Your task to perform on an android device: turn pop-ups on in chrome Image 0: 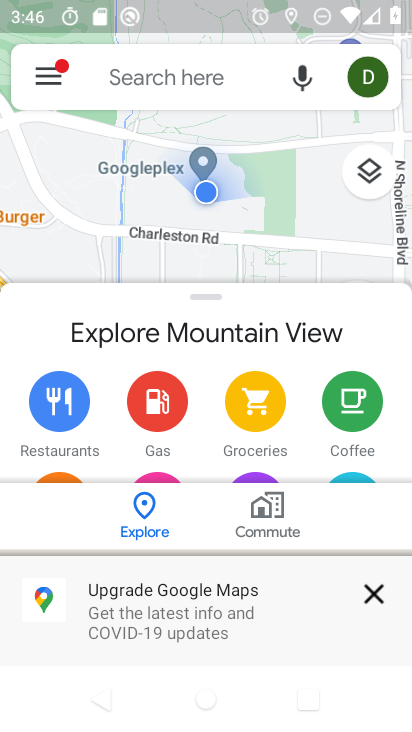
Step 0: press home button
Your task to perform on an android device: turn pop-ups on in chrome Image 1: 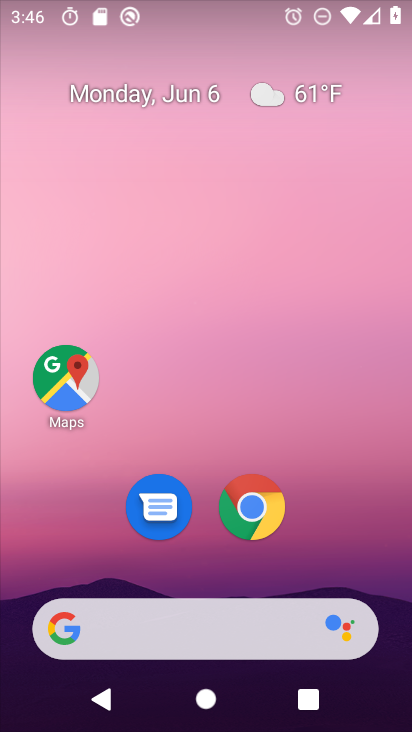
Step 1: click (264, 518)
Your task to perform on an android device: turn pop-ups on in chrome Image 2: 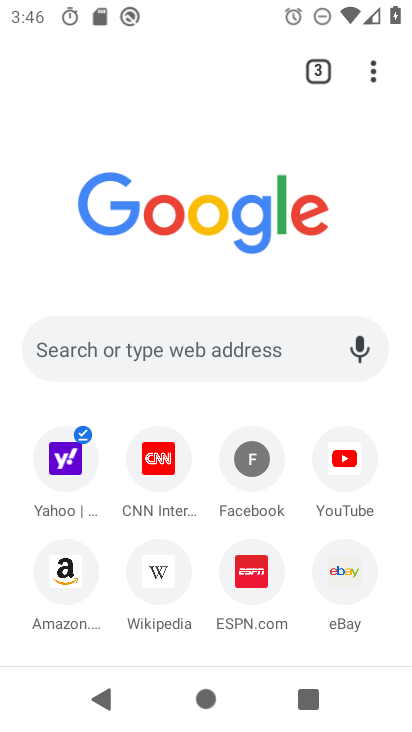
Step 2: click (371, 83)
Your task to perform on an android device: turn pop-ups on in chrome Image 3: 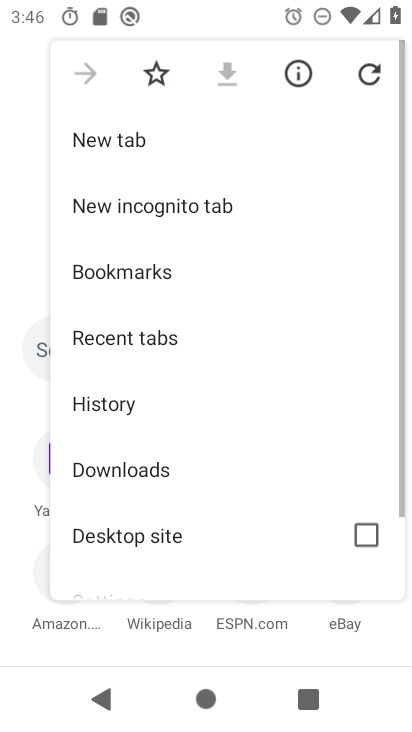
Step 3: drag from (189, 493) to (226, 219)
Your task to perform on an android device: turn pop-ups on in chrome Image 4: 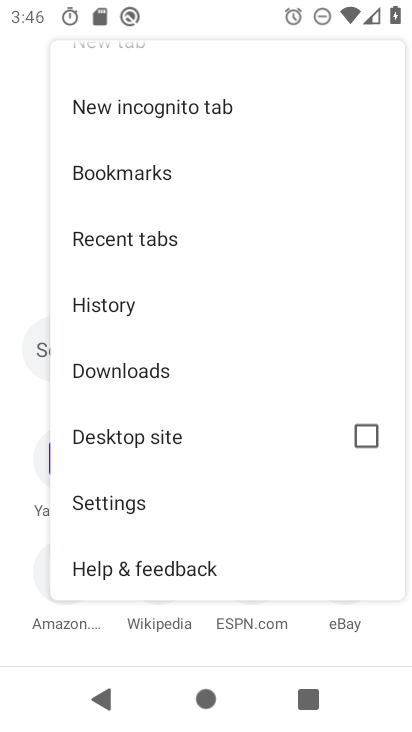
Step 4: click (130, 495)
Your task to perform on an android device: turn pop-ups on in chrome Image 5: 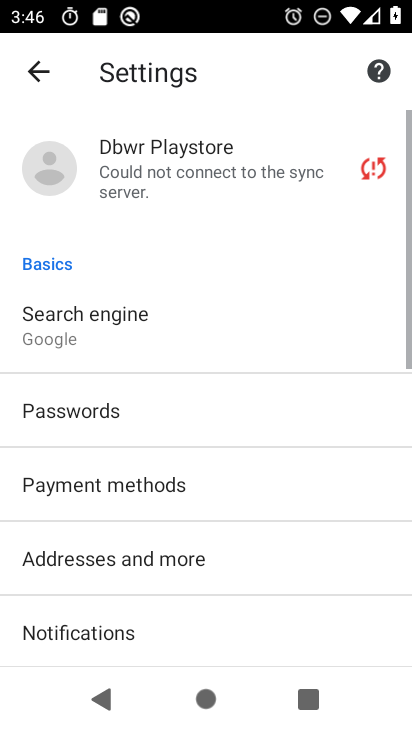
Step 5: drag from (166, 566) to (203, 325)
Your task to perform on an android device: turn pop-ups on in chrome Image 6: 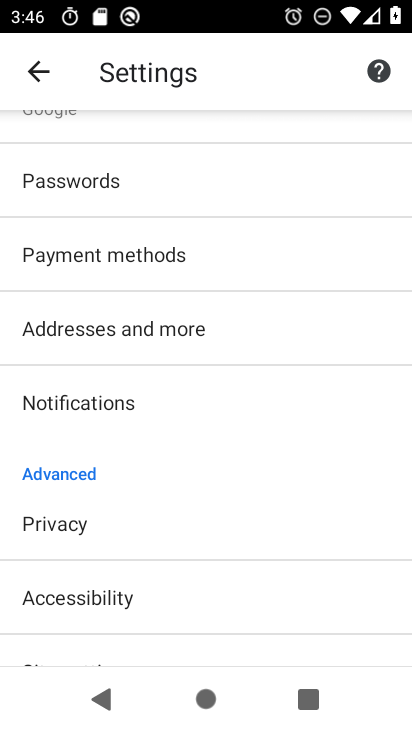
Step 6: drag from (159, 581) to (190, 355)
Your task to perform on an android device: turn pop-ups on in chrome Image 7: 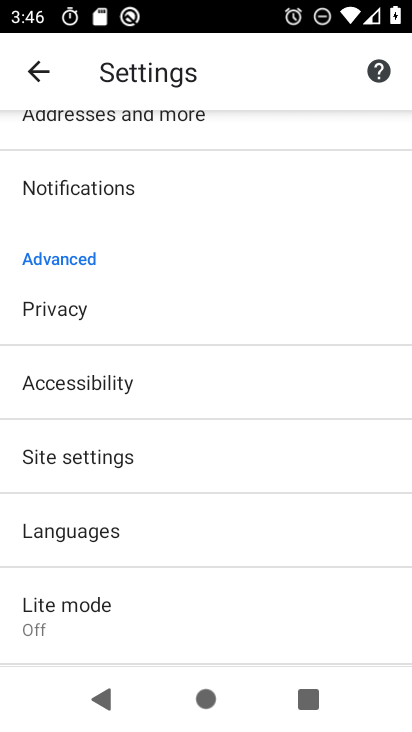
Step 7: click (118, 475)
Your task to perform on an android device: turn pop-ups on in chrome Image 8: 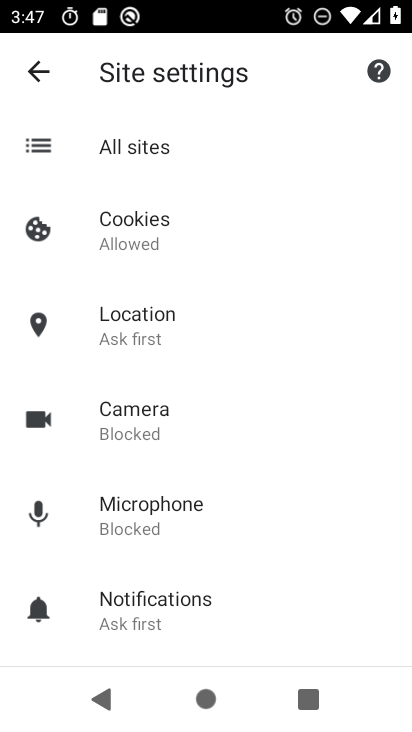
Step 8: drag from (188, 522) to (217, 207)
Your task to perform on an android device: turn pop-ups on in chrome Image 9: 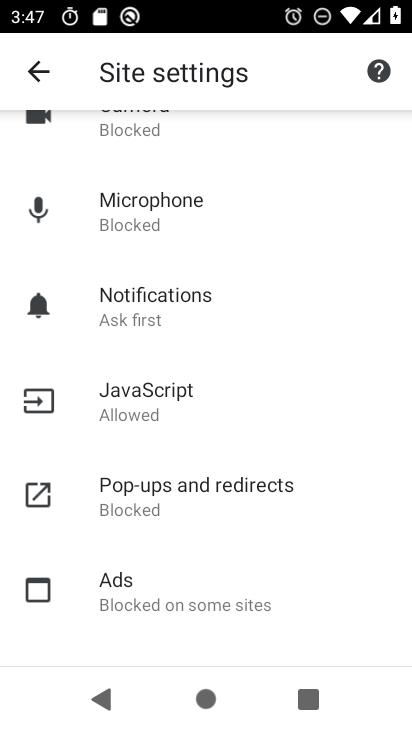
Step 9: click (168, 485)
Your task to perform on an android device: turn pop-ups on in chrome Image 10: 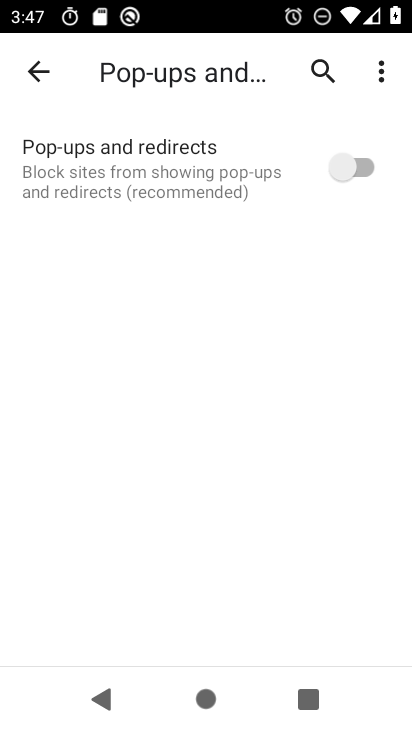
Step 10: click (362, 167)
Your task to perform on an android device: turn pop-ups on in chrome Image 11: 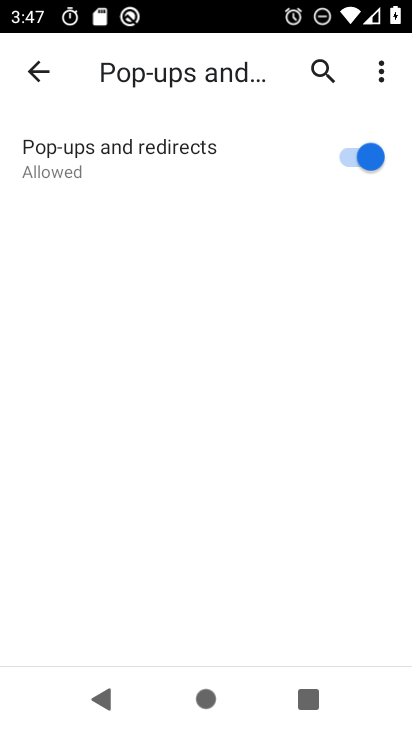
Step 11: task complete